Your task to perform on an android device: toggle show notifications on the lock screen Image 0: 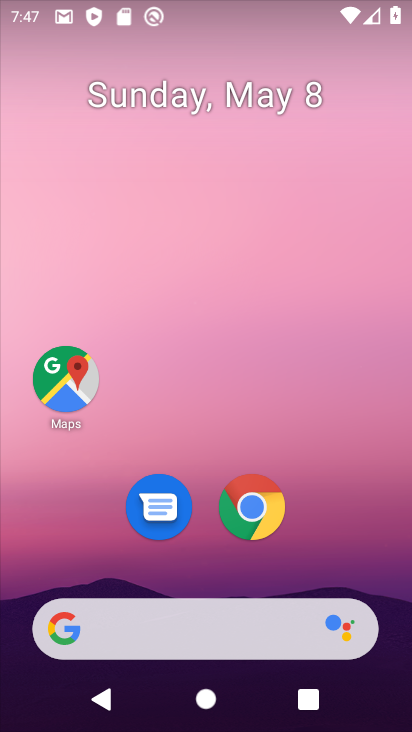
Step 0: drag from (340, 573) to (268, 146)
Your task to perform on an android device: toggle show notifications on the lock screen Image 1: 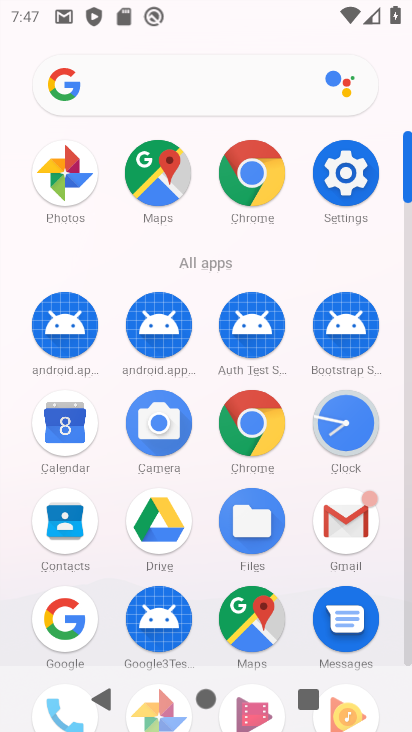
Step 1: click (361, 174)
Your task to perform on an android device: toggle show notifications on the lock screen Image 2: 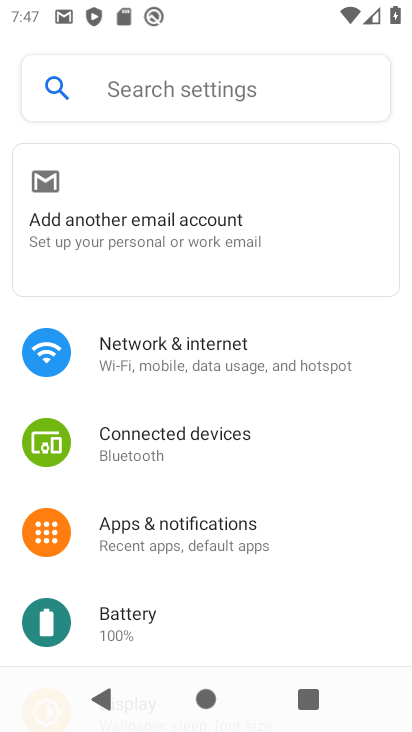
Step 2: drag from (262, 560) to (245, 304)
Your task to perform on an android device: toggle show notifications on the lock screen Image 3: 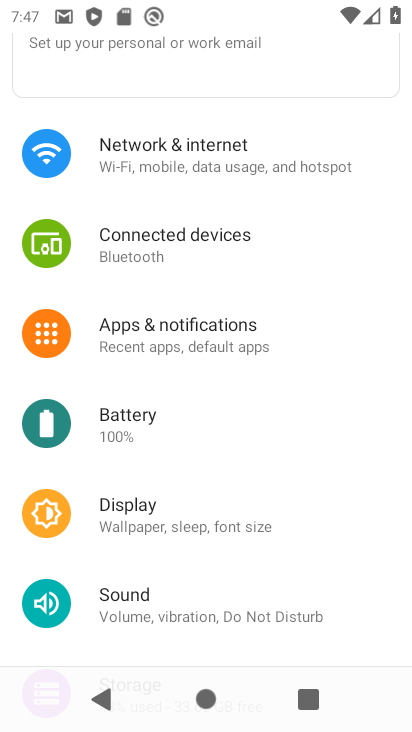
Step 3: click (255, 322)
Your task to perform on an android device: toggle show notifications on the lock screen Image 4: 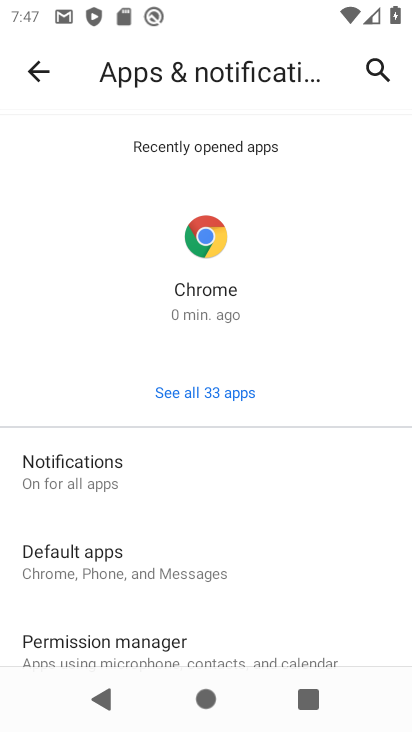
Step 4: click (248, 480)
Your task to perform on an android device: toggle show notifications on the lock screen Image 5: 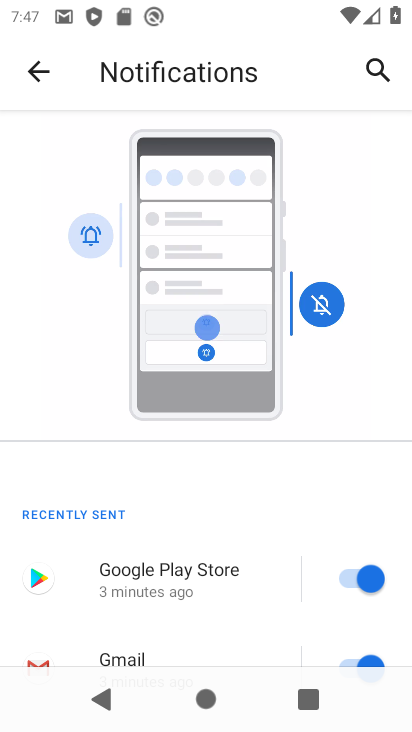
Step 5: drag from (258, 642) to (214, 224)
Your task to perform on an android device: toggle show notifications on the lock screen Image 6: 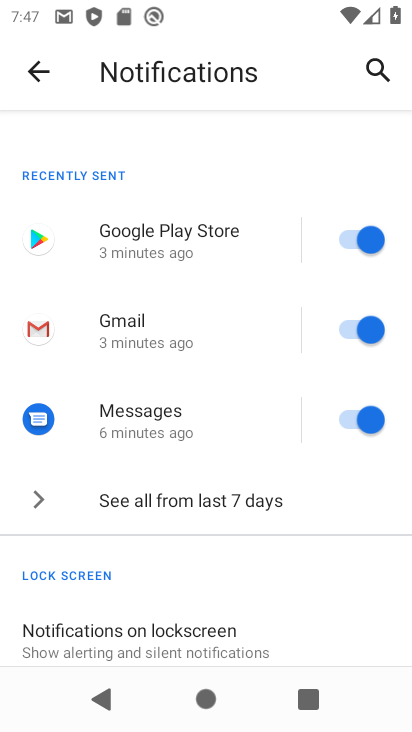
Step 6: drag from (274, 593) to (253, 236)
Your task to perform on an android device: toggle show notifications on the lock screen Image 7: 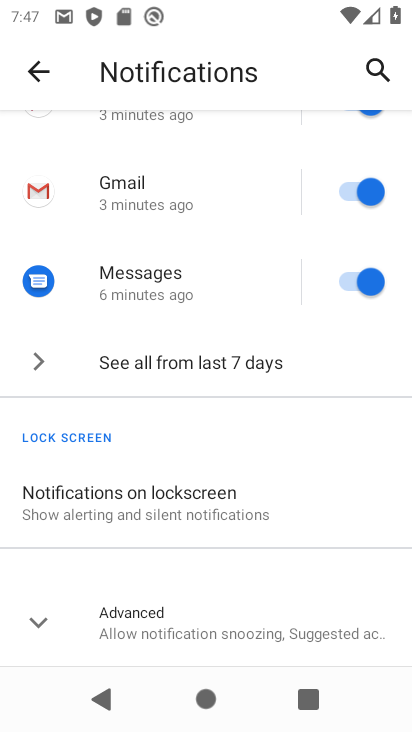
Step 7: click (254, 505)
Your task to perform on an android device: toggle show notifications on the lock screen Image 8: 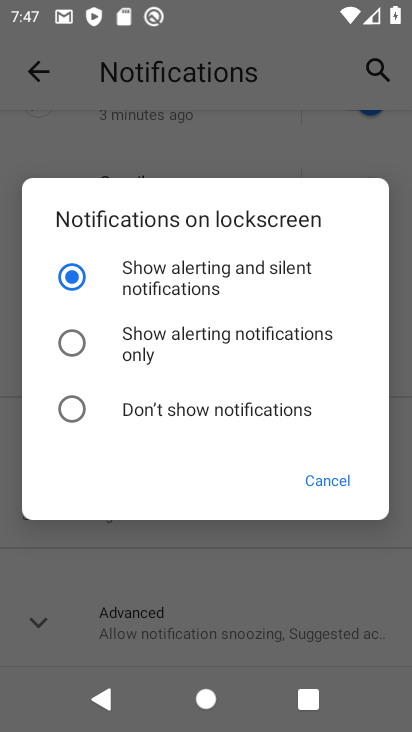
Step 8: click (249, 338)
Your task to perform on an android device: toggle show notifications on the lock screen Image 9: 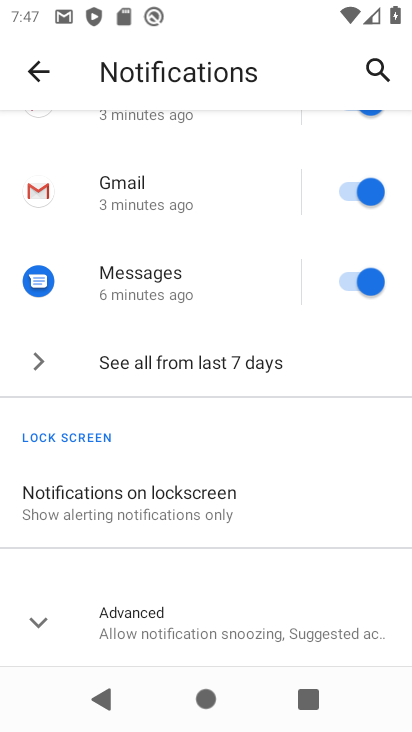
Step 9: task complete